Your task to perform on an android device: turn smart compose on in the gmail app Image 0: 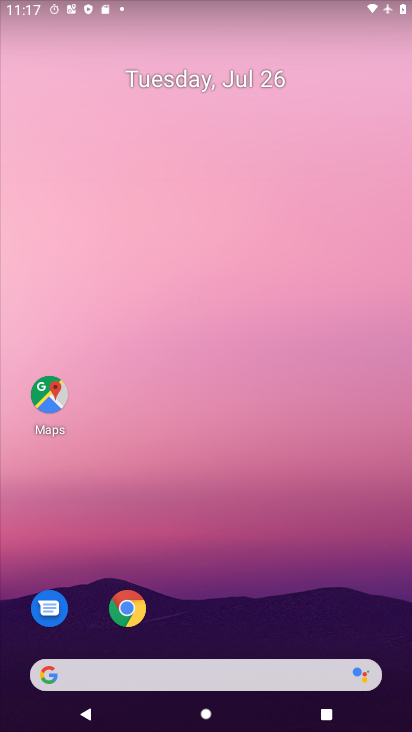
Step 0: drag from (239, 608) to (240, 106)
Your task to perform on an android device: turn smart compose on in the gmail app Image 1: 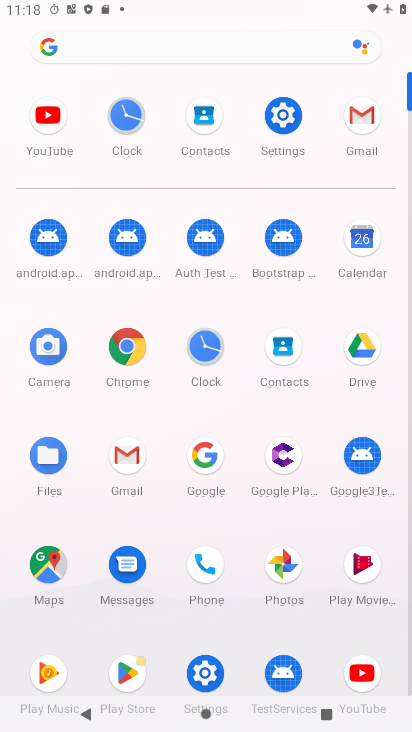
Step 1: click (359, 113)
Your task to perform on an android device: turn smart compose on in the gmail app Image 2: 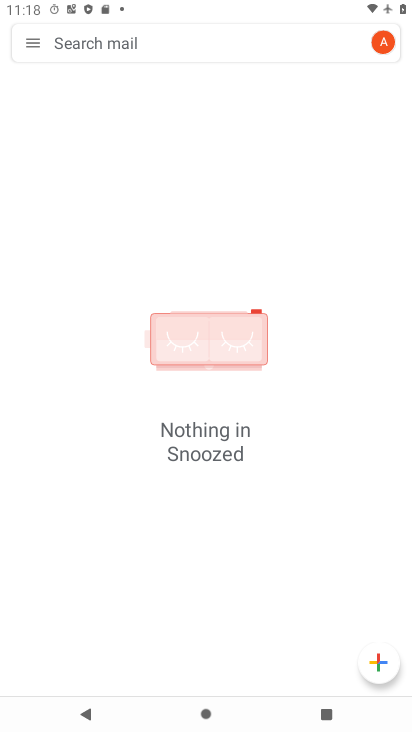
Step 2: click (24, 35)
Your task to perform on an android device: turn smart compose on in the gmail app Image 3: 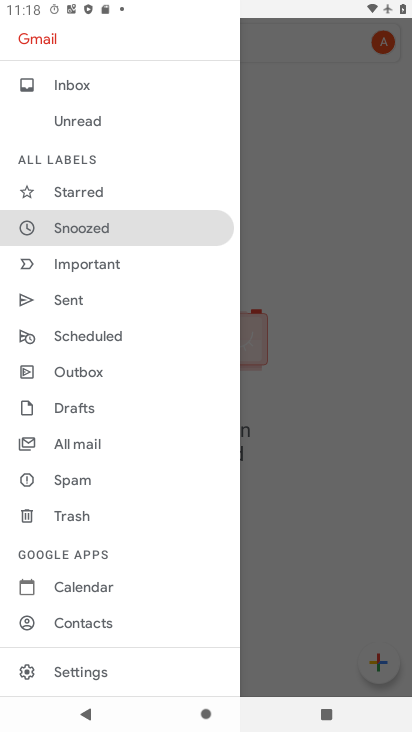
Step 3: click (90, 664)
Your task to perform on an android device: turn smart compose on in the gmail app Image 4: 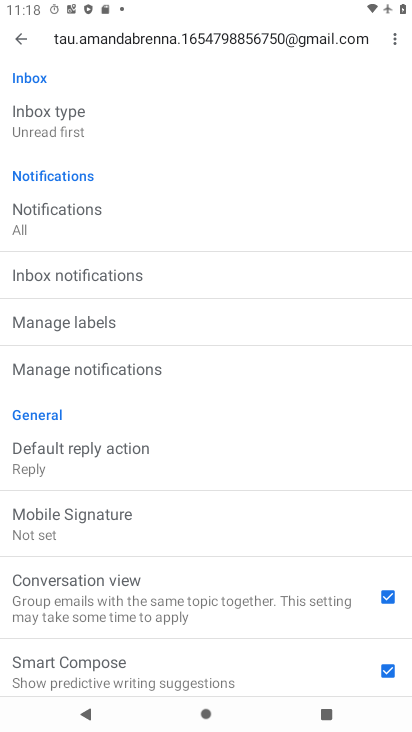
Step 4: task complete